Your task to perform on an android device: Clear the shopping cart on walmart.com. Search for logitech g pro on walmart.com, select the first entry, add it to the cart, then select checkout. Image 0: 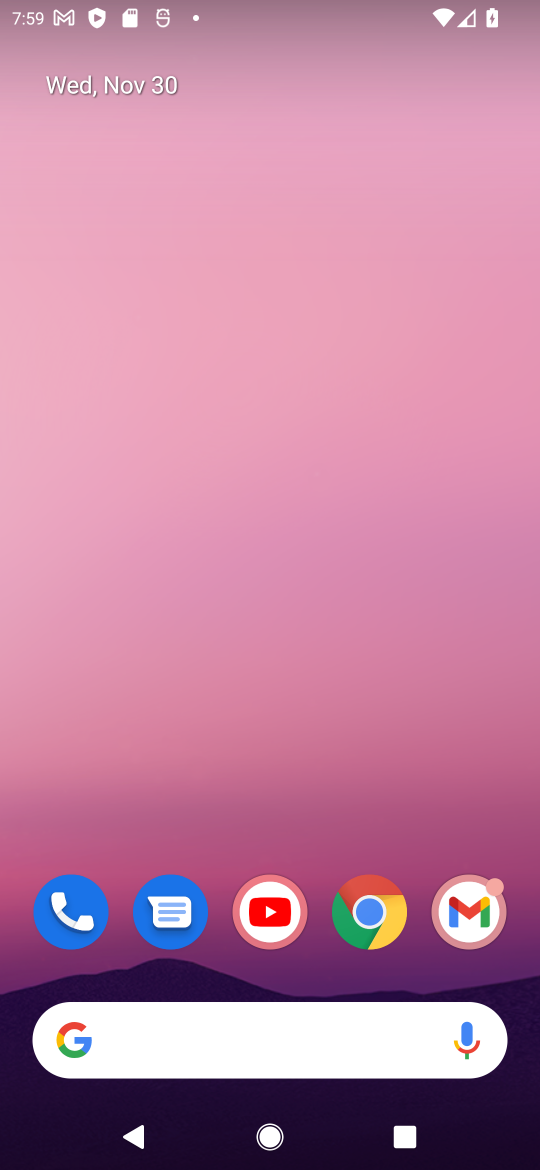
Step 0: click (285, 1023)
Your task to perform on an android device: Clear the shopping cart on walmart.com. Search for logitech g pro on walmart.com, select the first entry, add it to the cart, then select checkout. Image 1: 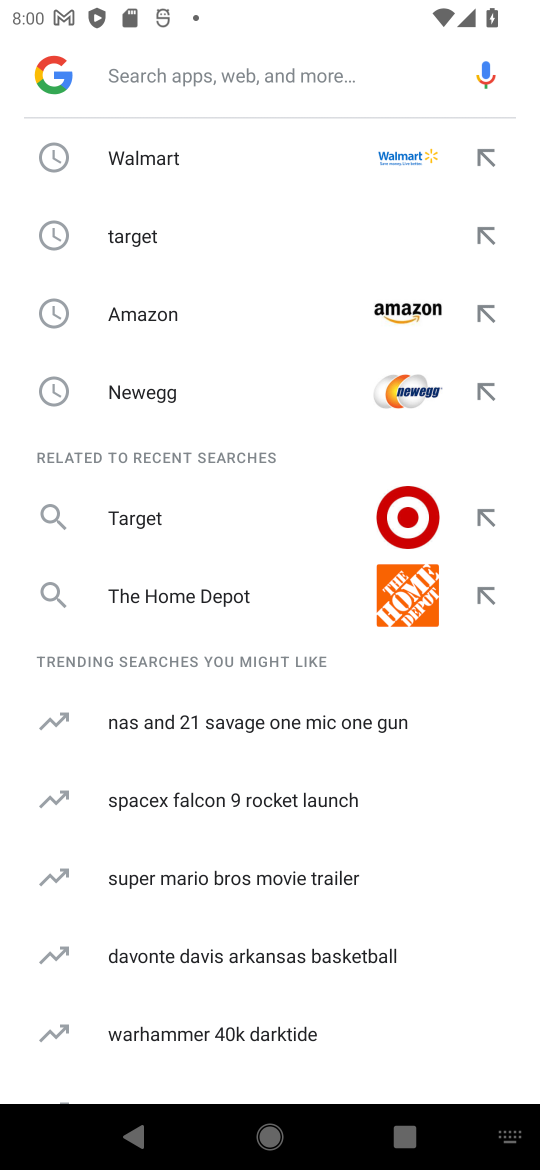
Step 1: click (251, 1033)
Your task to perform on an android device: Clear the shopping cart on walmart.com. Search for logitech g pro on walmart.com, select the first entry, add it to the cart, then select checkout. Image 2: 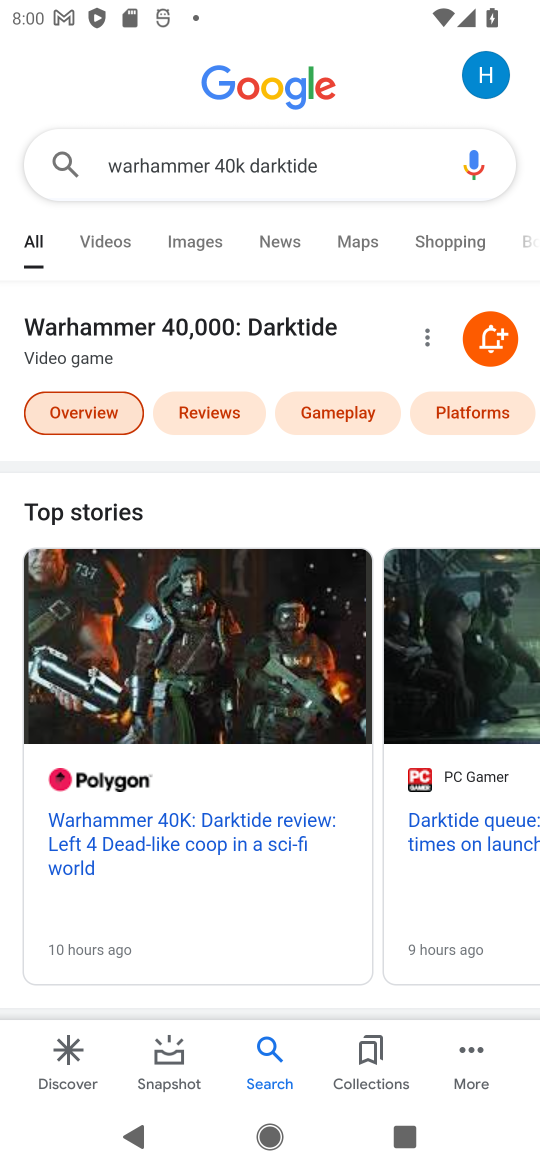
Step 2: press back button
Your task to perform on an android device: Clear the shopping cart on walmart.com. Search for logitech g pro on walmart.com, select the first entry, add it to the cart, then select checkout. Image 3: 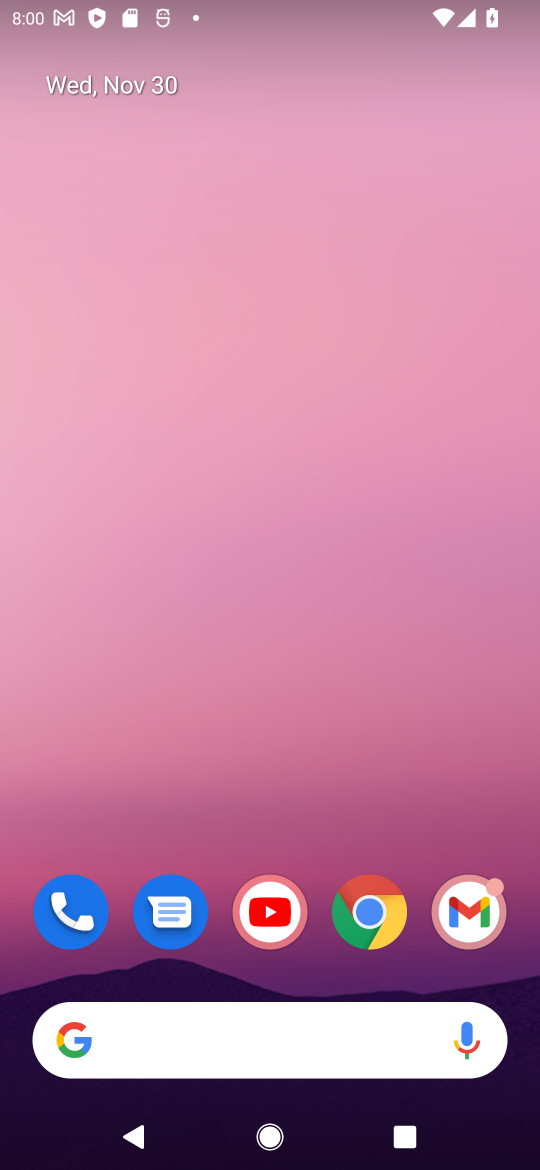
Step 3: click (252, 1022)
Your task to perform on an android device: Clear the shopping cart on walmart.com. Search for logitech g pro on walmart.com, select the first entry, add it to the cart, then select checkout. Image 4: 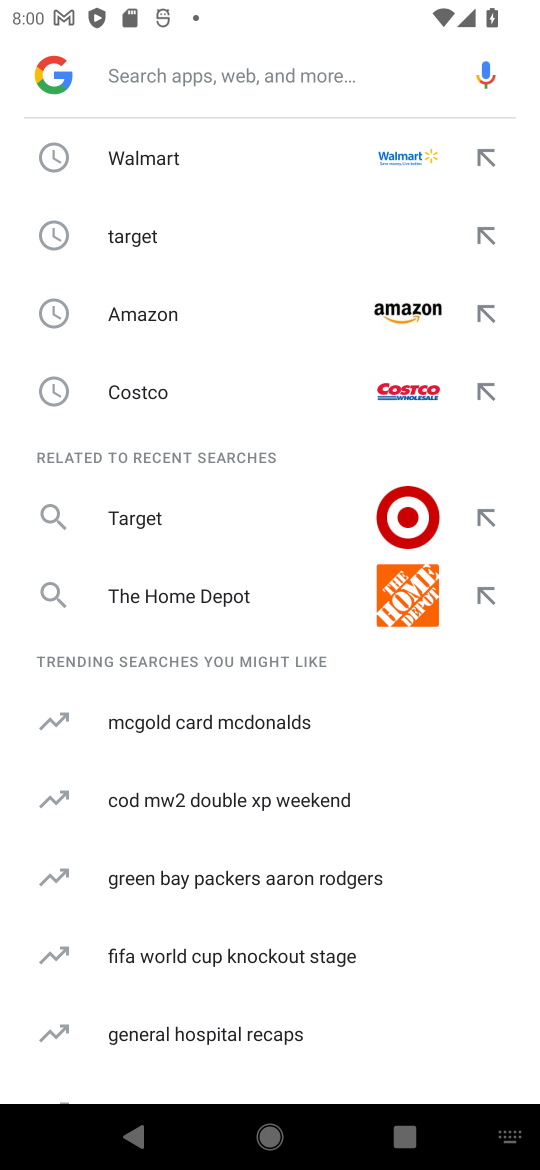
Step 4: click (226, 162)
Your task to perform on an android device: Clear the shopping cart on walmart.com. Search for logitech g pro on walmart.com, select the first entry, add it to the cart, then select checkout. Image 5: 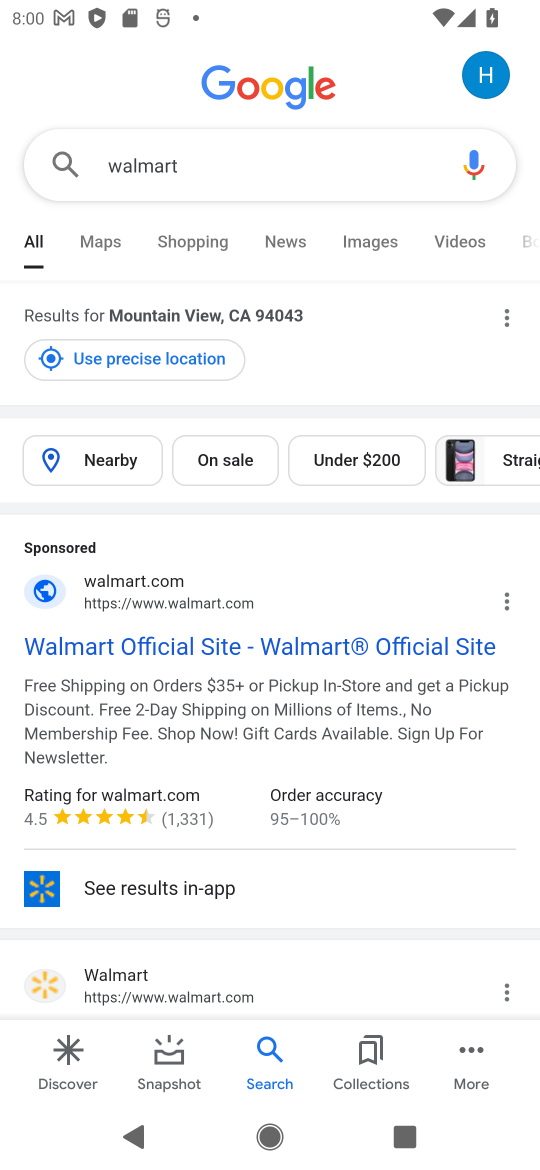
Step 5: click (120, 970)
Your task to perform on an android device: Clear the shopping cart on walmart.com. Search for logitech g pro on walmart.com, select the first entry, add it to the cart, then select checkout. Image 6: 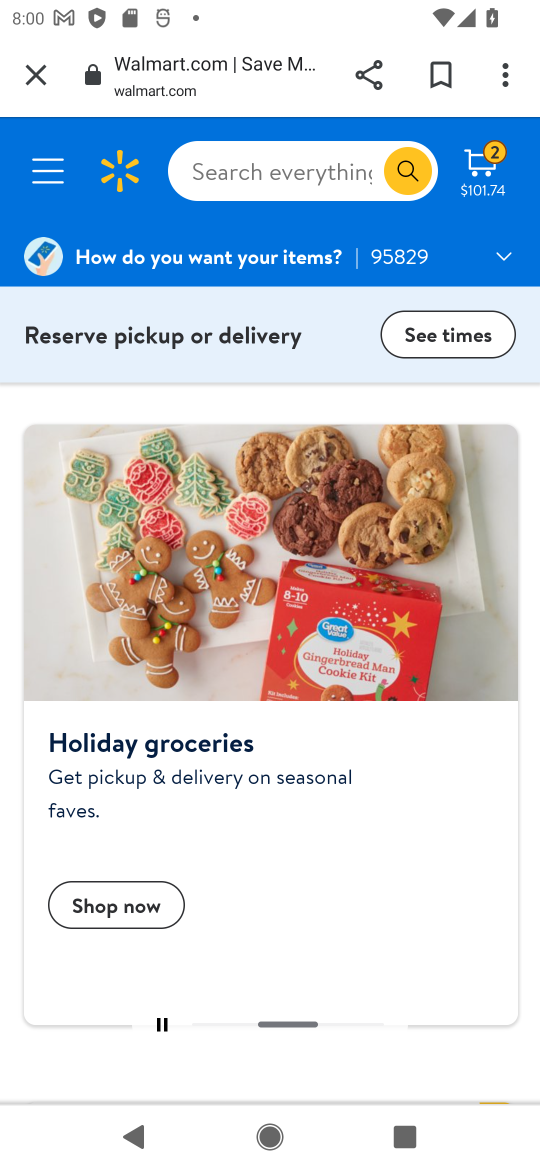
Step 6: click (489, 180)
Your task to perform on an android device: Clear the shopping cart on walmart.com. Search for logitech g pro on walmart.com, select the first entry, add it to the cart, then select checkout. Image 7: 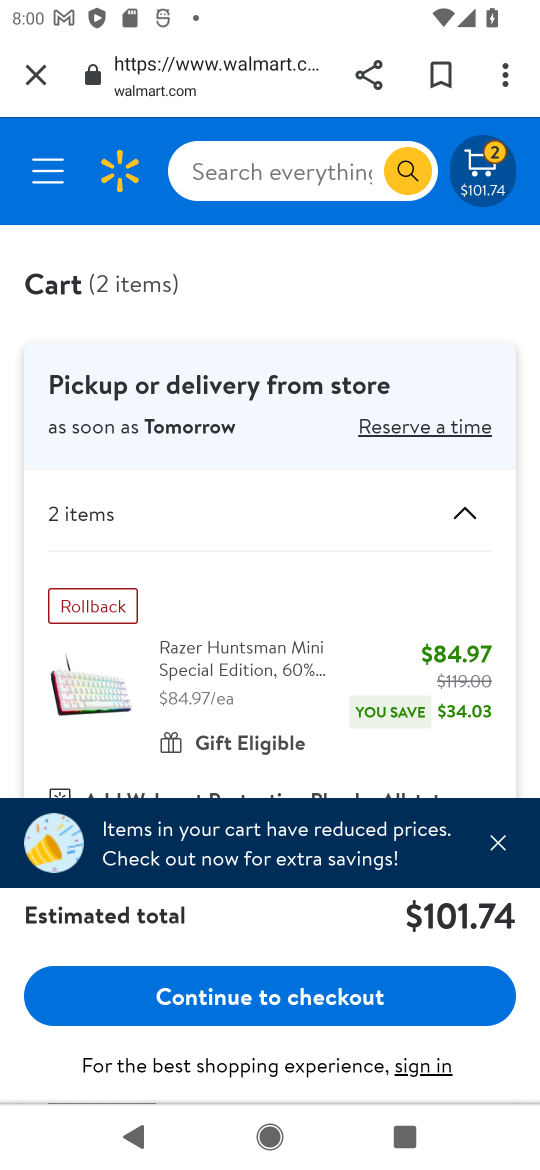
Step 7: click (500, 838)
Your task to perform on an android device: Clear the shopping cart on walmart.com. Search for logitech g pro on walmart.com, select the first entry, add it to the cart, then select checkout. Image 8: 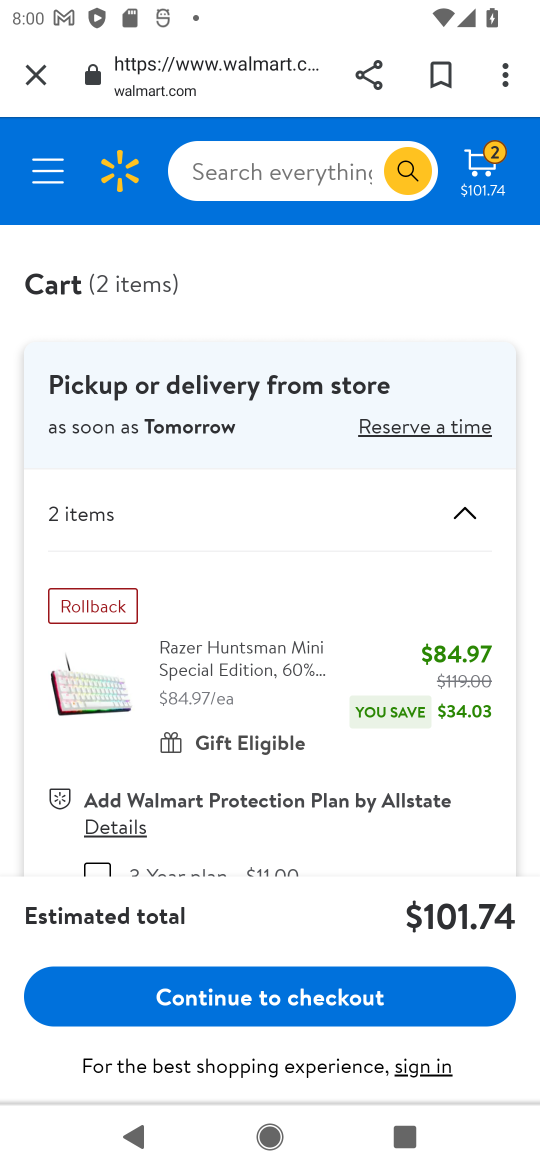
Step 8: click (389, 722)
Your task to perform on an android device: Clear the shopping cart on walmart.com. Search for logitech g pro on walmart.com, select the first entry, add it to the cart, then select checkout. Image 9: 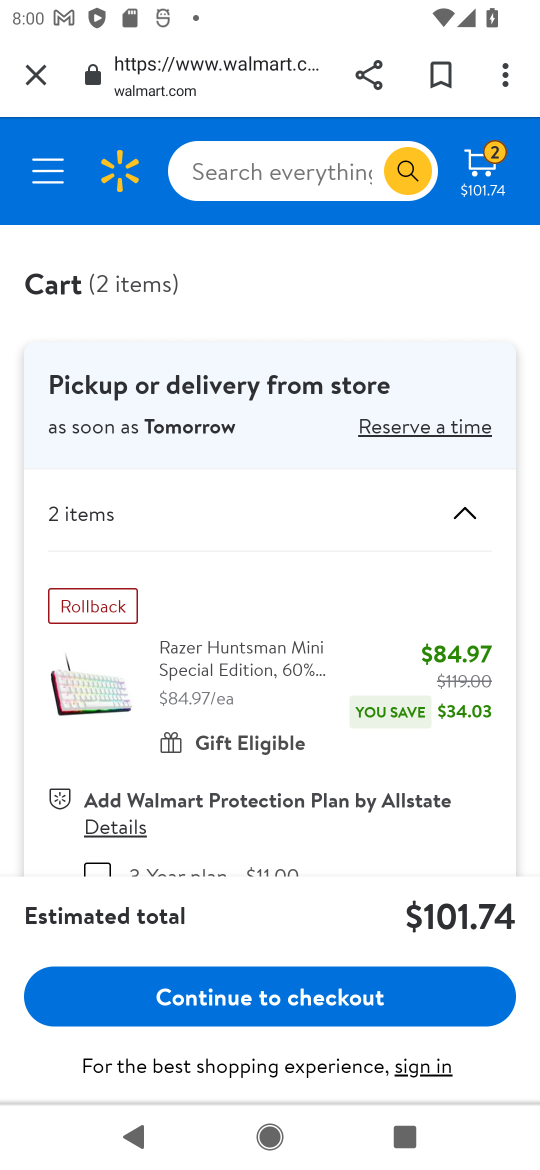
Step 9: drag from (354, 665) to (378, 545)
Your task to perform on an android device: Clear the shopping cart on walmart.com. Search for logitech g pro on walmart.com, select the first entry, add it to the cart, then select checkout. Image 10: 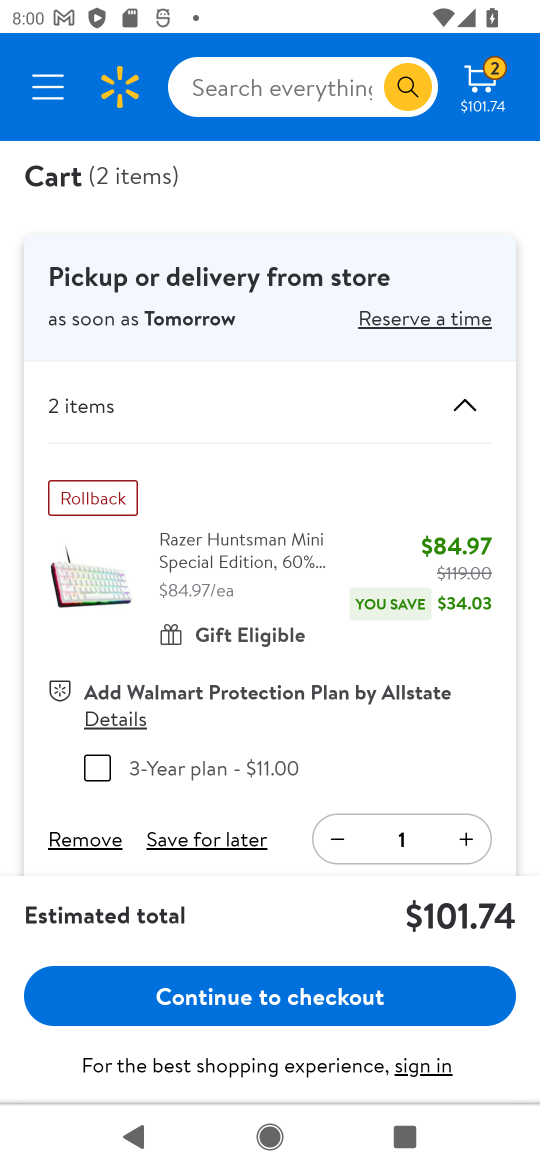
Step 10: click (72, 839)
Your task to perform on an android device: Clear the shopping cart on walmart.com. Search for logitech g pro on walmart.com, select the first entry, add it to the cart, then select checkout. Image 11: 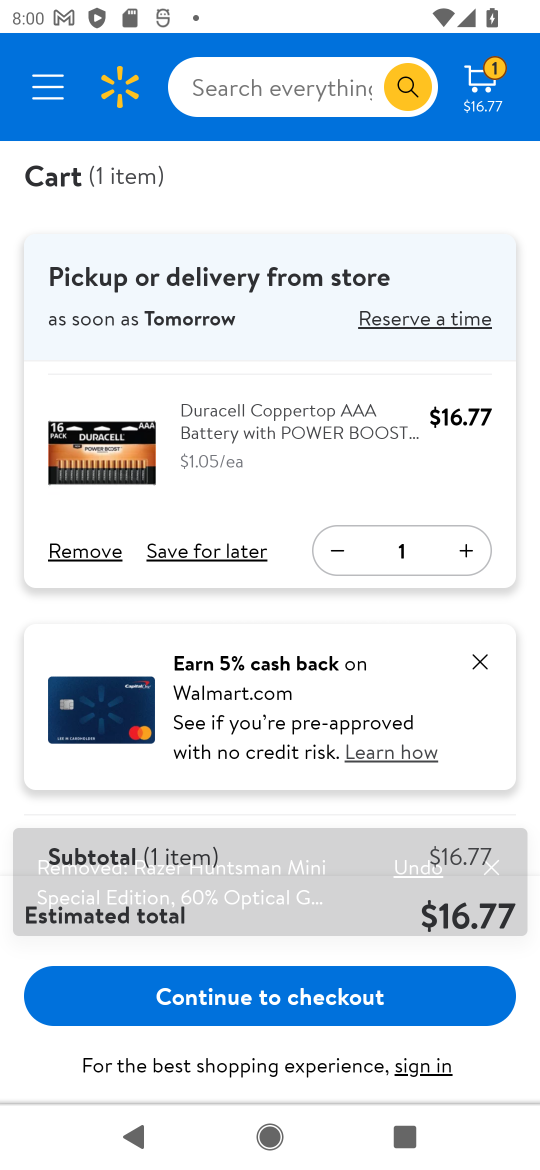
Step 11: click (86, 549)
Your task to perform on an android device: Clear the shopping cart on walmart.com. Search for logitech g pro on walmart.com, select the first entry, add it to the cart, then select checkout. Image 12: 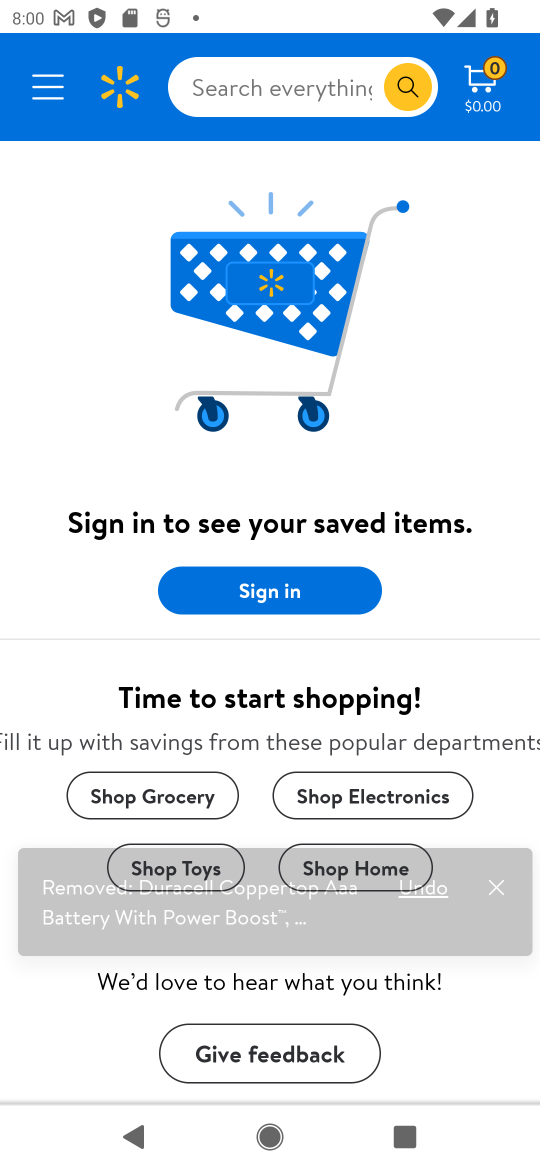
Step 12: click (311, 66)
Your task to perform on an android device: Clear the shopping cart on walmart.com. Search for logitech g pro on walmart.com, select the first entry, add it to the cart, then select checkout. Image 13: 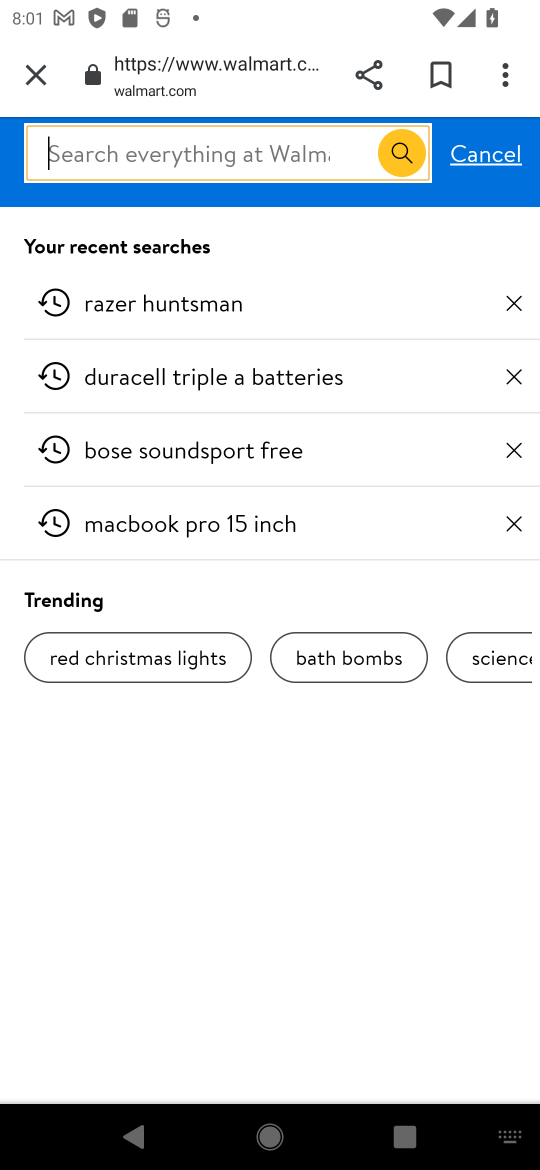
Step 13: type " logitech g pro"
Your task to perform on an android device: Clear the shopping cart on walmart.com. Search for logitech g pro on walmart.com, select the first entry, add it to the cart, then select checkout. Image 14: 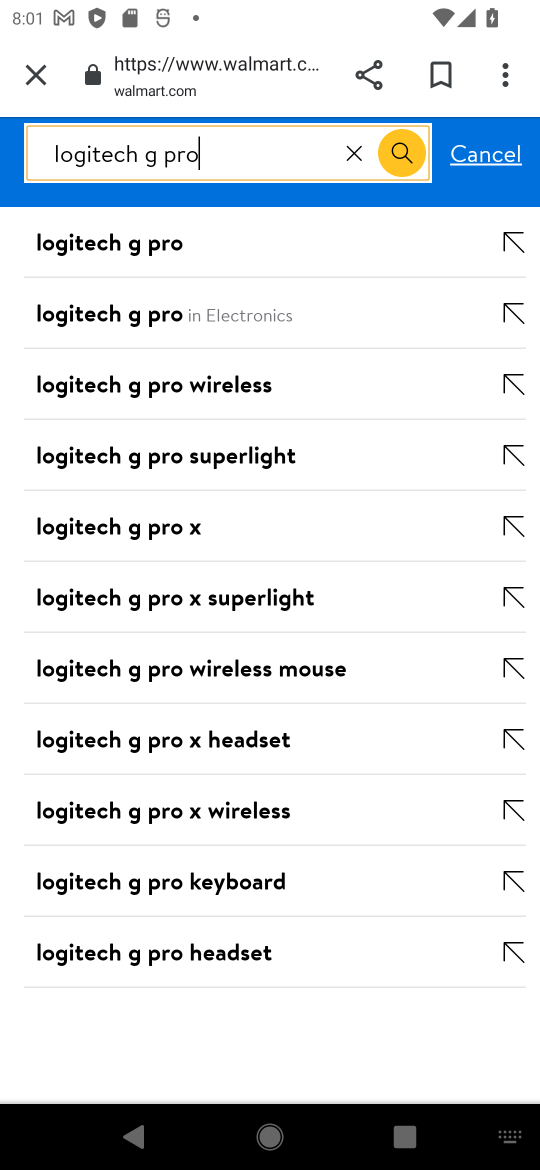
Step 14: click (141, 239)
Your task to perform on an android device: Clear the shopping cart on walmart.com. Search for logitech g pro on walmart.com, select the first entry, add it to the cart, then select checkout. Image 15: 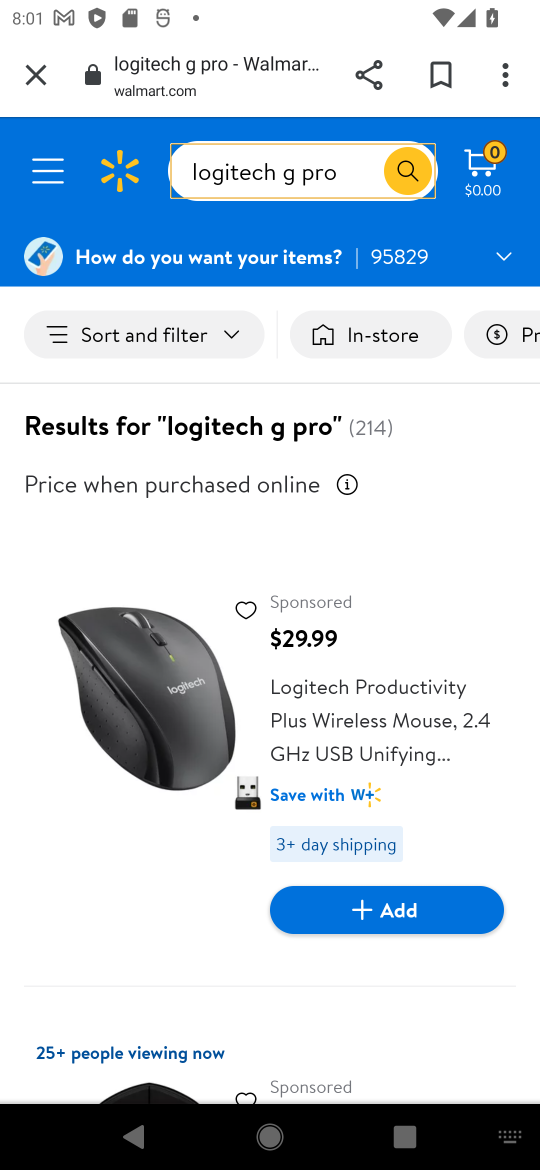
Step 15: click (394, 916)
Your task to perform on an android device: Clear the shopping cart on walmart.com. Search for logitech g pro on walmart.com, select the first entry, add it to the cart, then select checkout. Image 16: 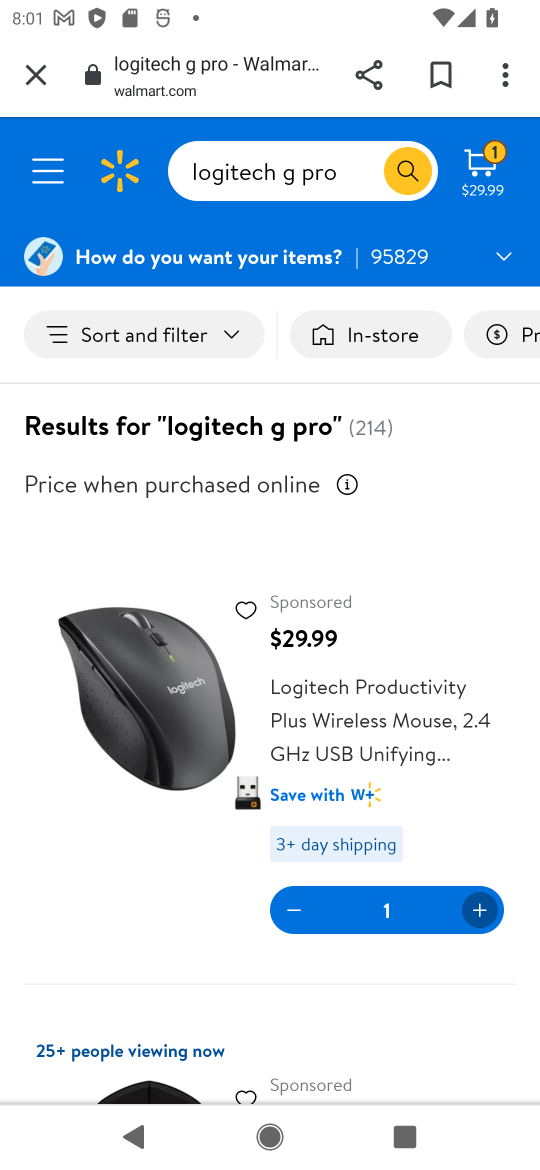
Step 16: click (485, 175)
Your task to perform on an android device: Clear the shopping cart on walmart.com. Search for logitech g pro on walmart.com, select the first entry, add it to the cart, then select checkout. Image 17: 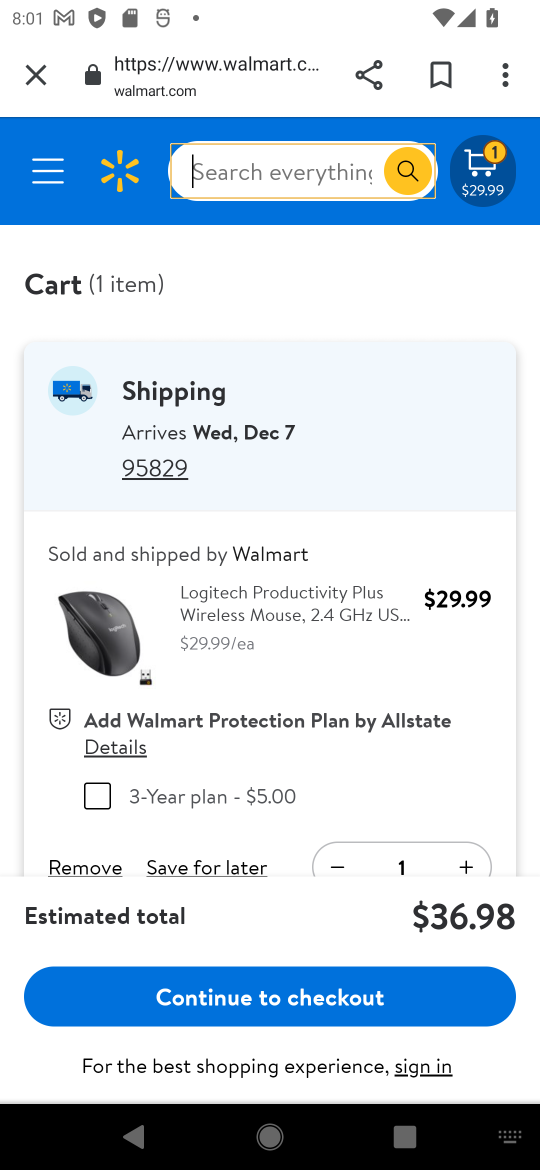
Step 17: click (265, 995)
Your task to perform on an android device: Clear the shopping cart on walmart.com. Search for logitech g pro on walmart.com, select the first entry, add it to the cart, then select checkout. Image 18: 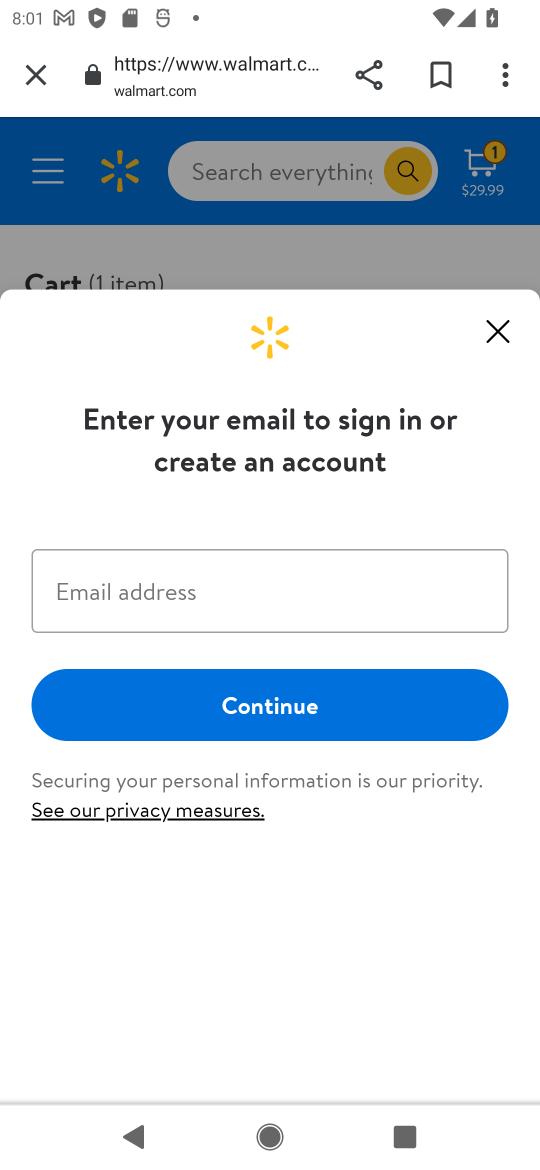
Step 18: task complete